Your task to perform on an android device: Go to display settings Image 0: 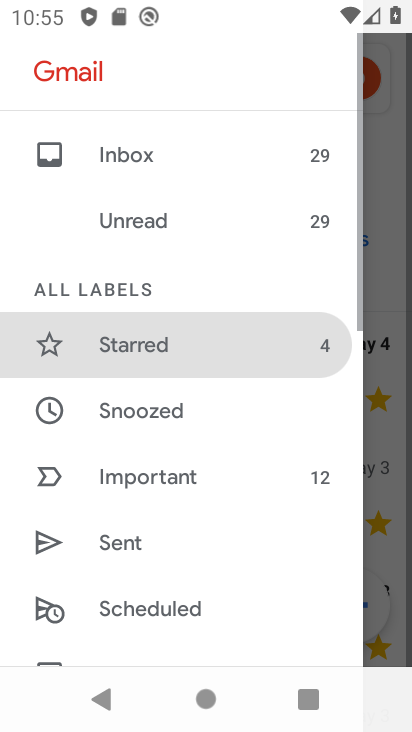
Step 0: press home button
Your task to perform on an android device: Go to display settings Image 1: 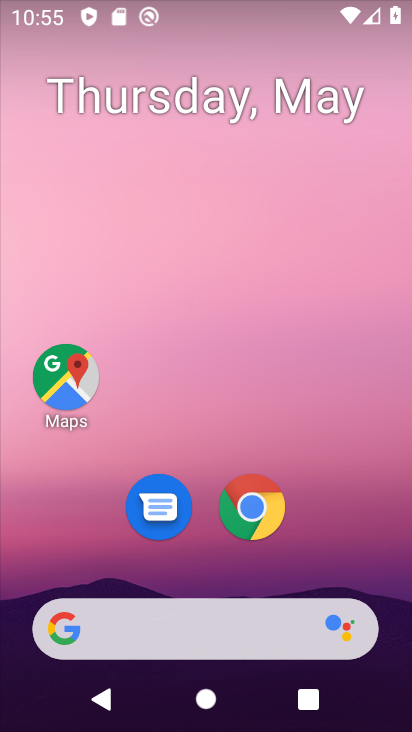
Step 1: drag from (200, 594) to (179, 202)
Your task to perform on an android device: Go to display settings Image 2: 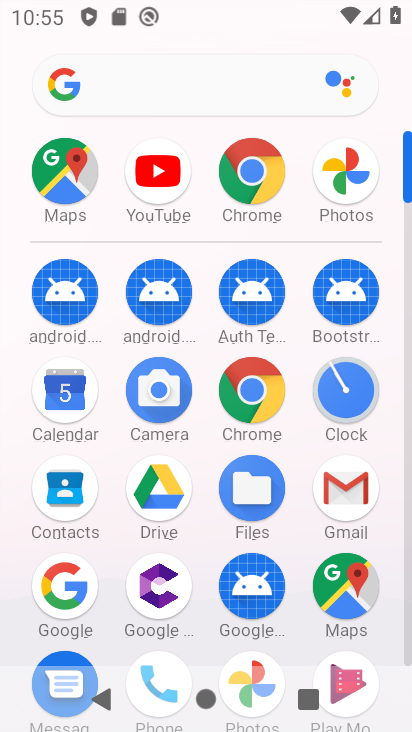
Step 2: drag from (327, 522) to (352, 5)
Your task to perform on an android device: Go to display settings Image 3: 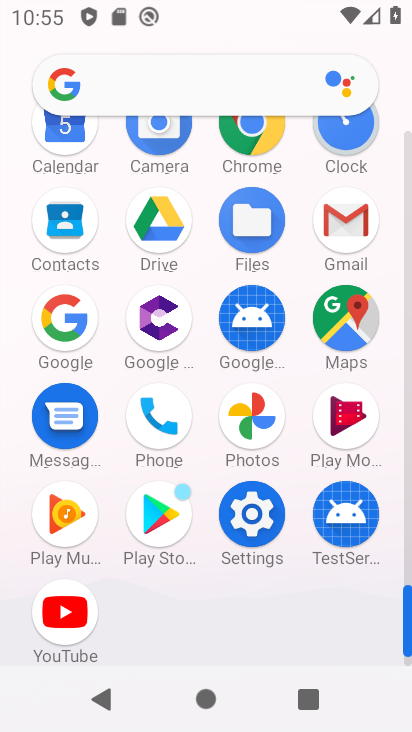
Step 3: click (258, 505)
Your task to perform on an android device: Go to display settings Image 4: 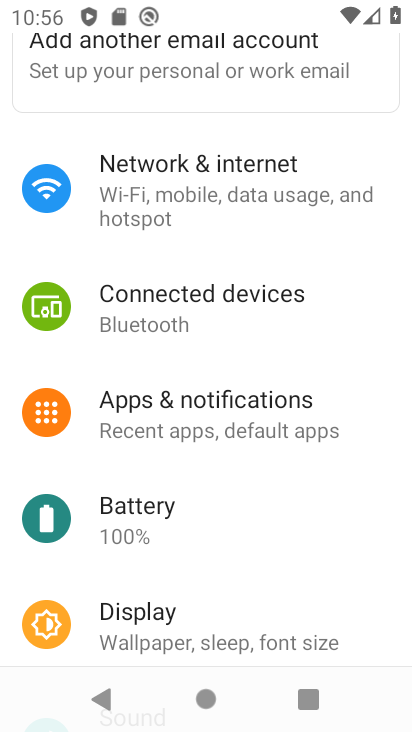
Step 4: drag from (194, 508) to (192, 210)
Your task to perform on an android device: Go to display settings Image 5: 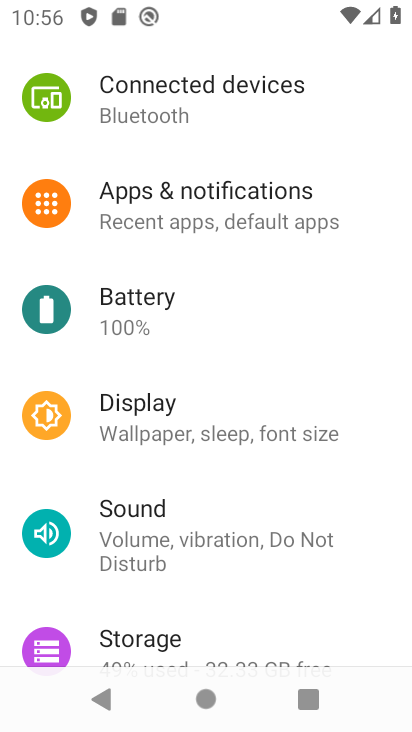
Step 5: drag from (165, 581) to (212, 271)
Your task to perform on an android device: Go to display settings Image 6: 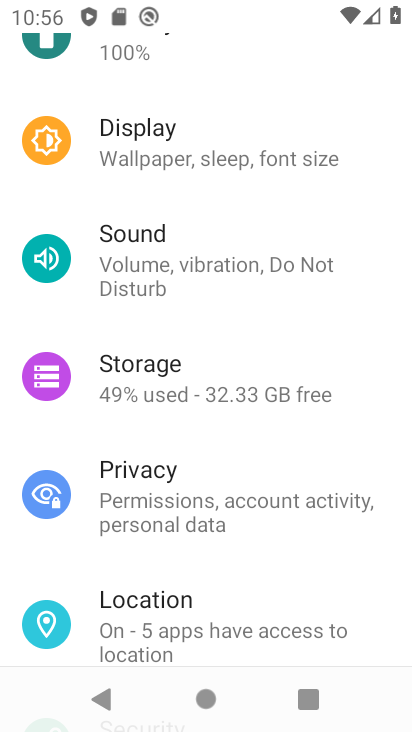
Step 6: drag from (163, 539) to (193, 315)
Your task to perform on an android device: Go to display settings Image 7: 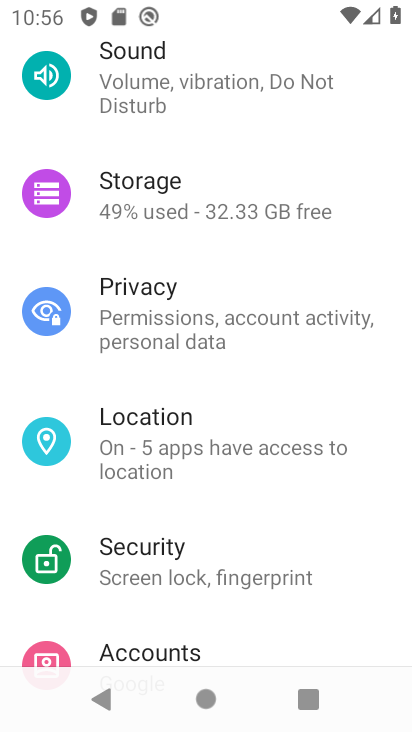
Step 7: drag from (205, 194) to (208, 496)
Your task to perform on an android device: Go to display settings Image 8: 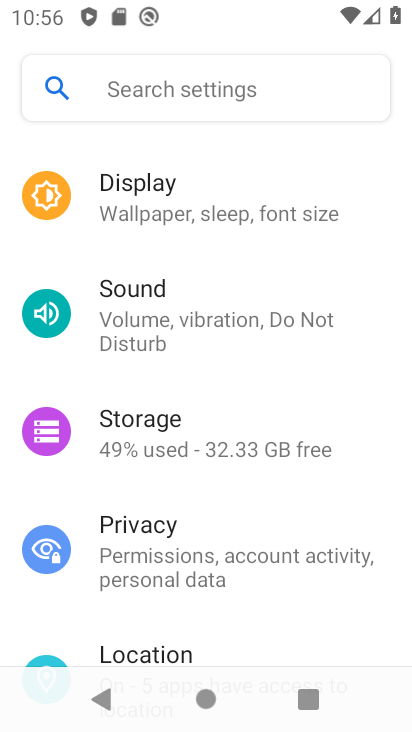
Step 8: click (216, 217)
Your task to perform on an android device: Go to display settings Image 9: 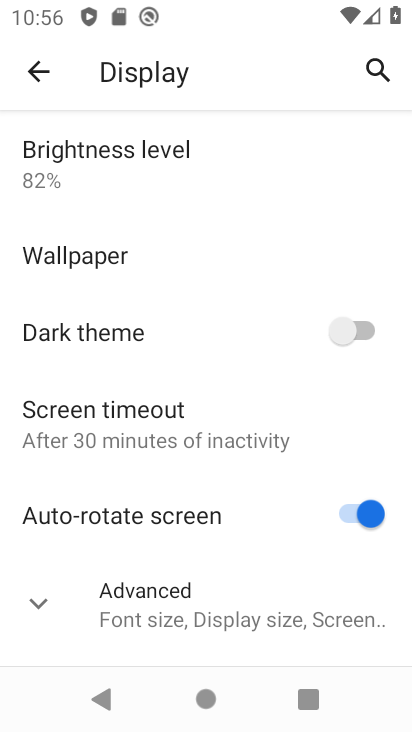
Step 9: task complete